Your task to perform on an android device: Open ESPN.com Image 0: 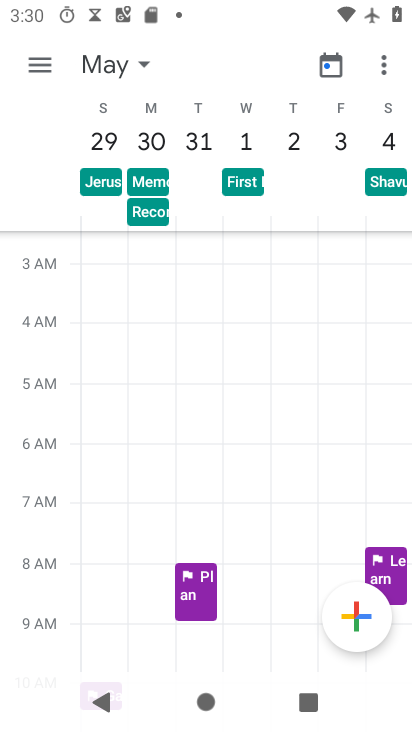
Step 0: drag from (326, 545) to (242, 168)
Your task to perform on an android device: Open ESPN.com Image 1: 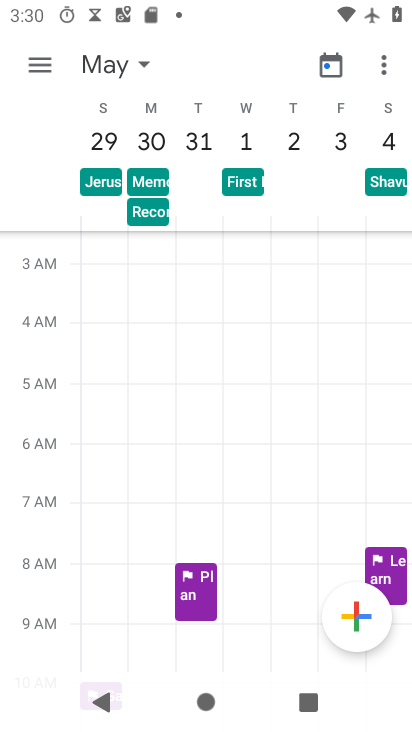
Step 1: press home button
Your task to perform on an android device: Open ESPN.com Image 2: 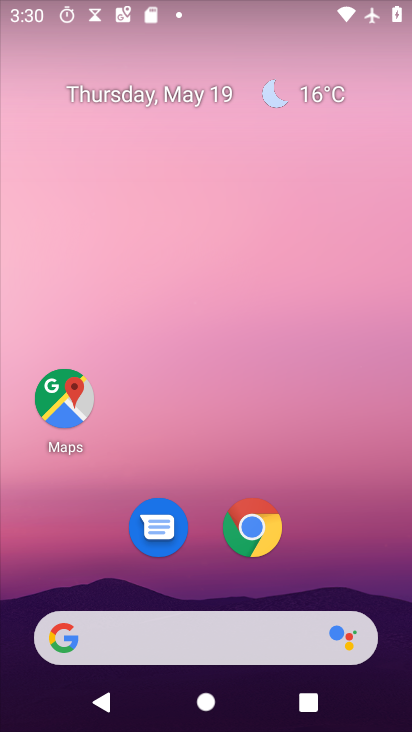
Step 2: click (263, 532)
Your task to perform on an android device: Open ESPN.com Image 3: 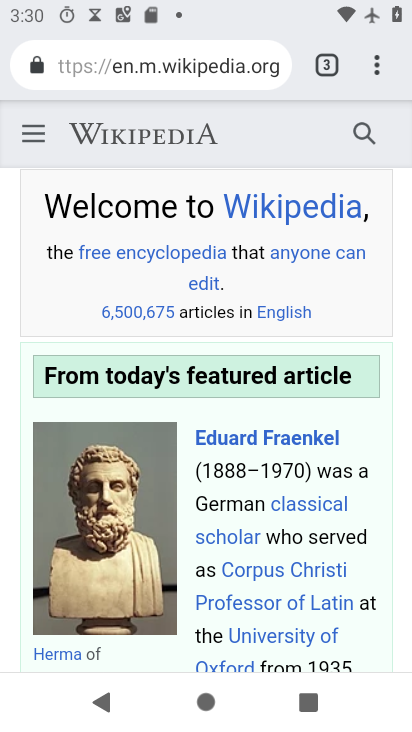
Step 3: click (320, 71)
Your task to perform on an android device: Open ESPN.com Image 4: 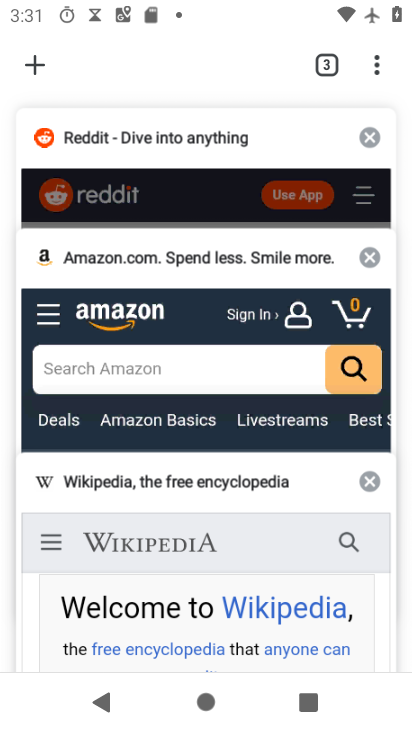
Step 4: click (47, 67)
Your task to perform on an android device: Open ESPN.com Image 5: 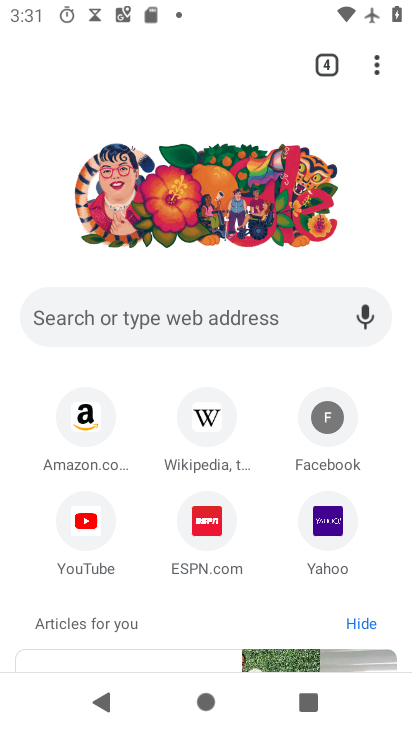
Step 5: click (223, 527)
Your task to perform on an android device: Open ESPN.com Image 6: 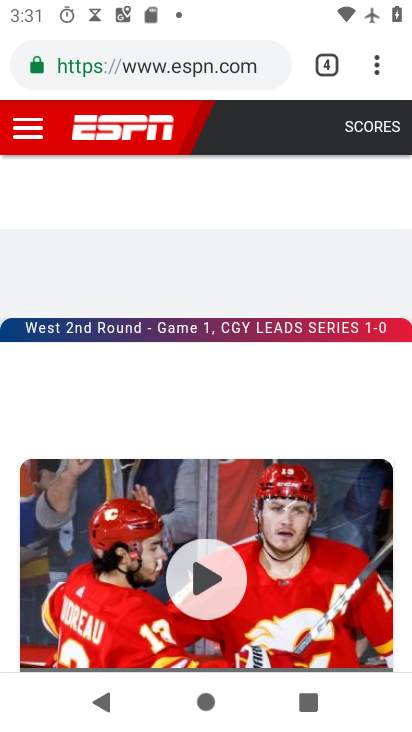
Step 6: task complete